Your task to perform on an android device: Go to display settings Image 0: 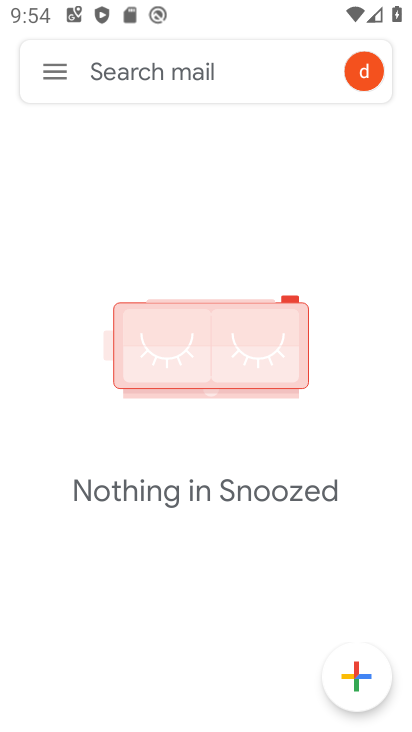
Step 0: press home button
Your task to perform on an android device: Go to display settings Image 1: 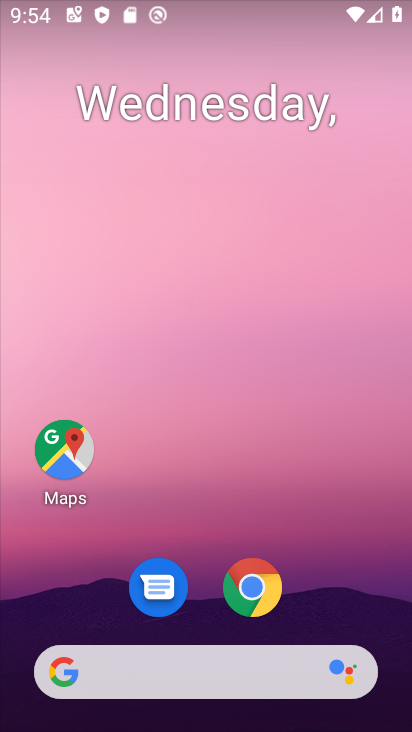
Step 1: drag from (321, 622) to (238, 18)
Your task to perform on an android device: Go to display settings Image 2: 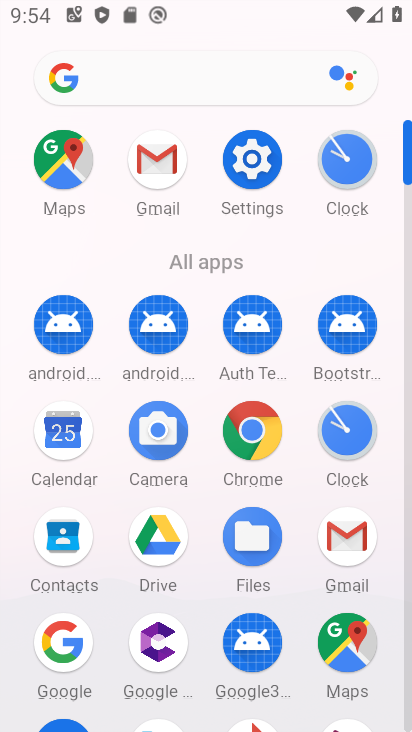
Step 2: click (242, 156)
Your task to perform on an android device: Go to display settings Image 3: 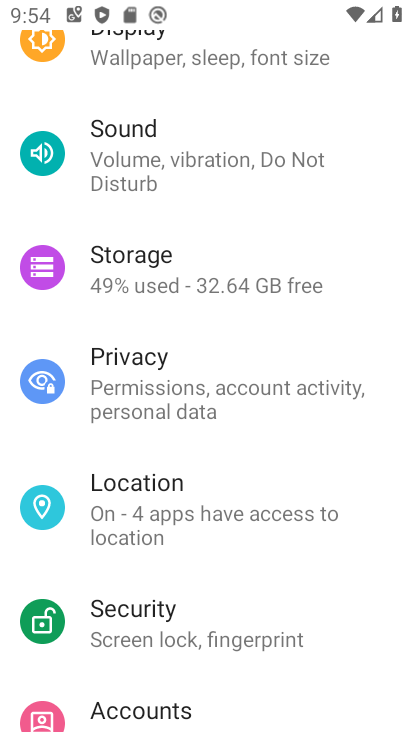
Step 3: drag from (240, 119) to (263, 506)
Your task to perform on an android device: Go to display settings Image 4: 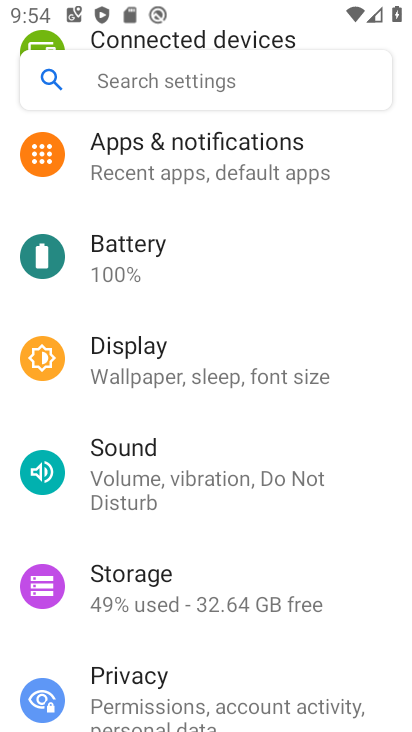
Step 4: click (147, 362)
Your task to perform on an android device: Go to display settings Image 5: 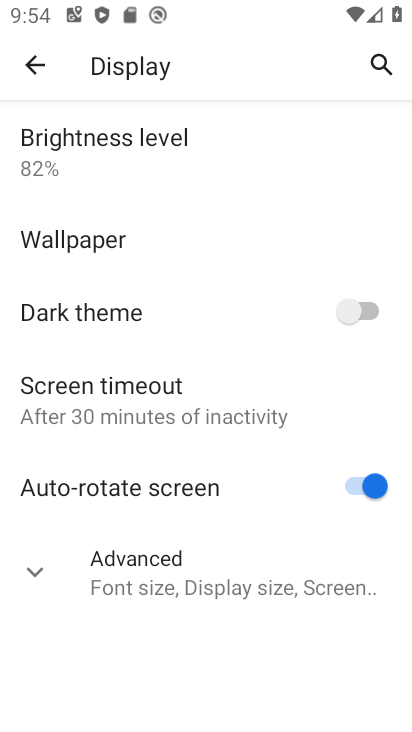
Step 5: task complete